Your task to perform on an android device: check the backup settings in the google photos Image 0: 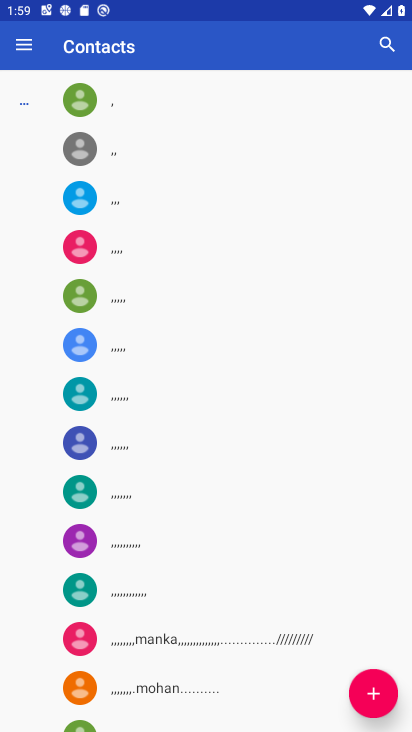
Step 0: press home button
Your task to perform on an android device: check the backup settings in the google photos Image 1: 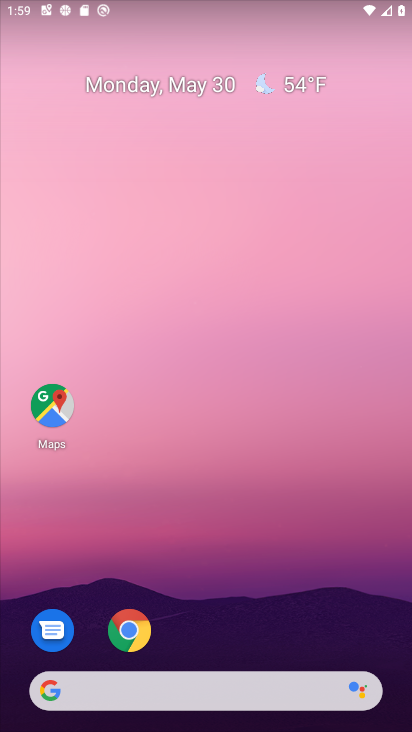
Step 1: drag from (170, 693) to (269, 114)
Your task to perform on an android device: check the backup settings in the google photos Image 2: 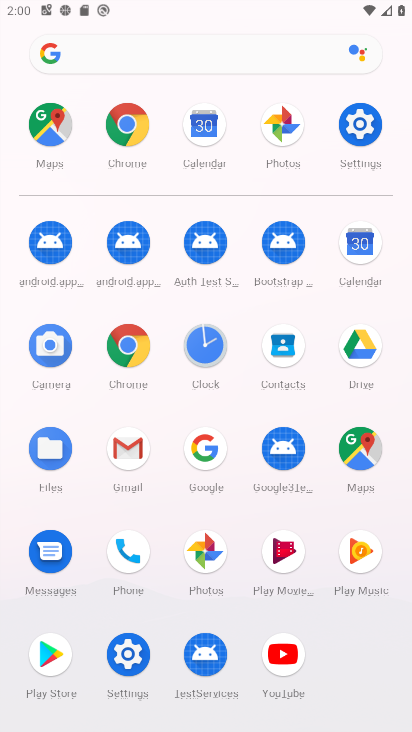
Step 2: click (208, 562)
Your task to perform on an android device: check the backup settings in the google photos Image 3: 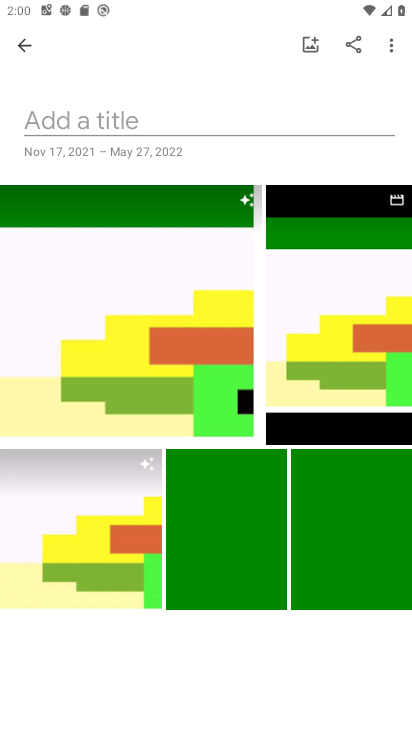
Step 3: click (29, 42)
Your task to perform on an android device: check the backup settings in the google photos Image 4: 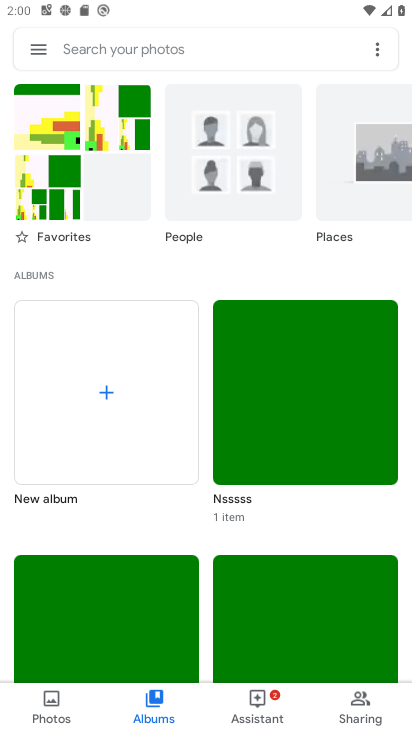
Step 4: click (31, 50)
Your task to perform on an android device: check the backup settings in the google photos Image 5: 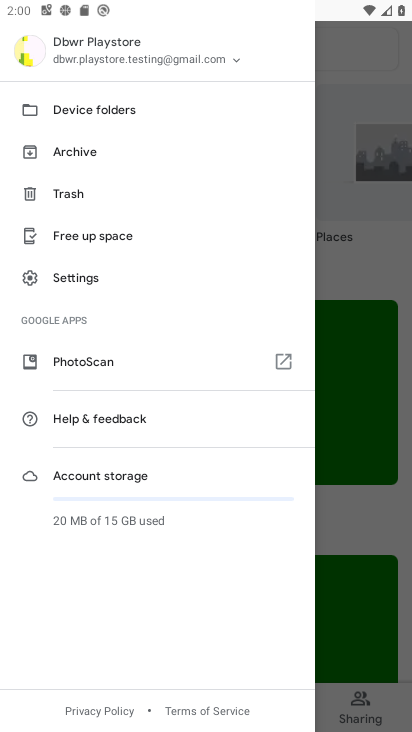
Step 5: click (77, 274)
Your task to perform on an android device: check the backup settings in the google photos Image 6: 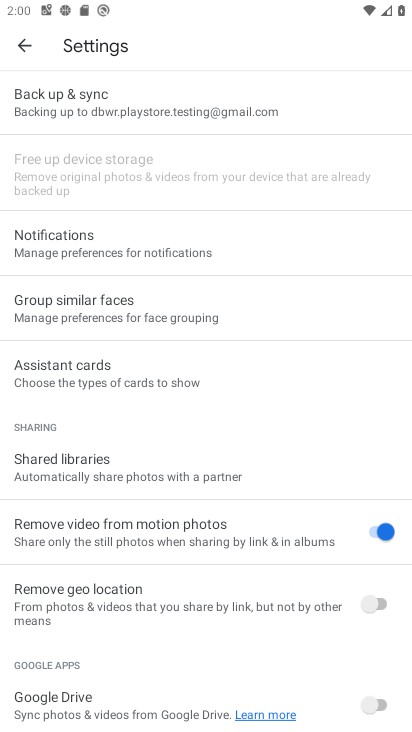
Step 6: click (121, 120)
Your task to perform on an android device: check the backup settings in the google photos Image 7: 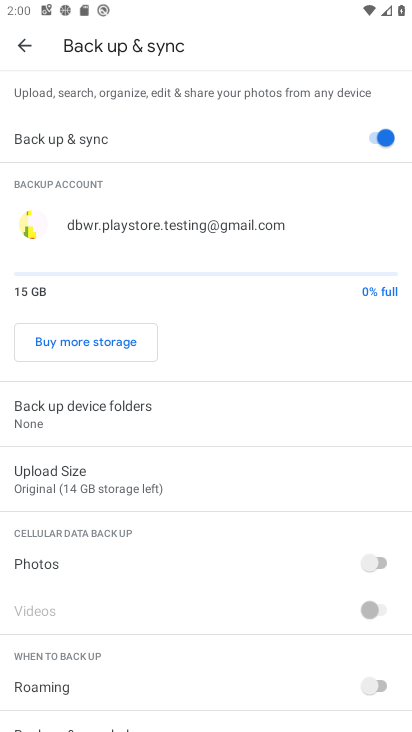
Step 7: task complete